Your task to perform on an android device: Open the calendar app, open the side menu, and click the "Day" option Image 0: 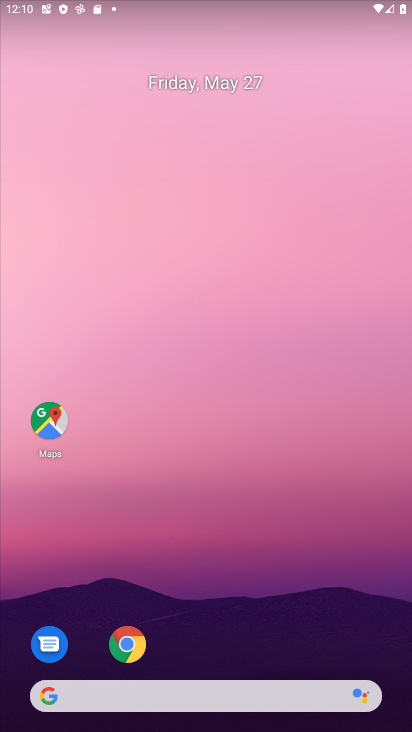
Step 0: drag from (299, 612) to (287, 36)
Your task to perform on an android device: Open the calendar app, open the side menu, and click the "Day" option Image 1: 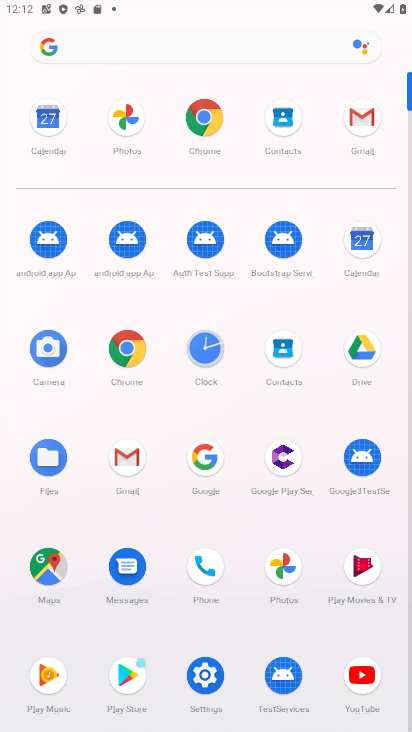
Step 1: click (372, 250)
Your task to perform on an android device: Open the calendar app, open the side menu, and click the "Day" option Image 2: 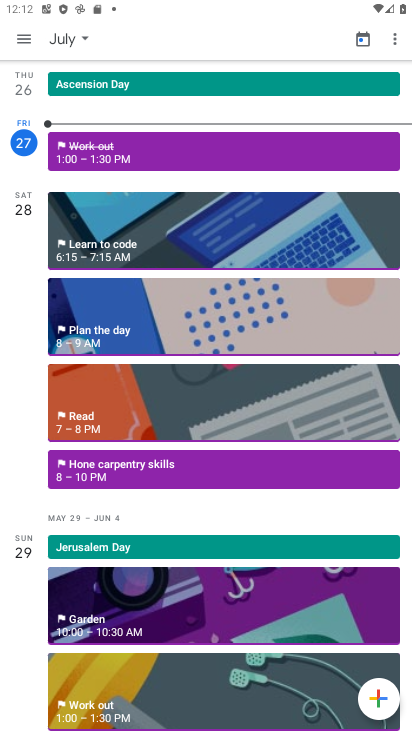
Step 2: click (20, 34)
Your task to perform on an android device: Open the calendar app, open the side menu, and click the "Day" option Image 3: 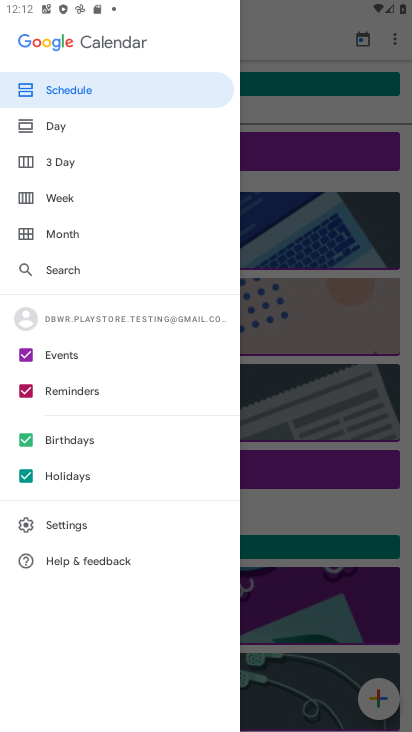
Step 3: click (91, 116)
Your task to perform on an android device: Open the calendar app, open the side menu, and click the "Day" option Image 4: 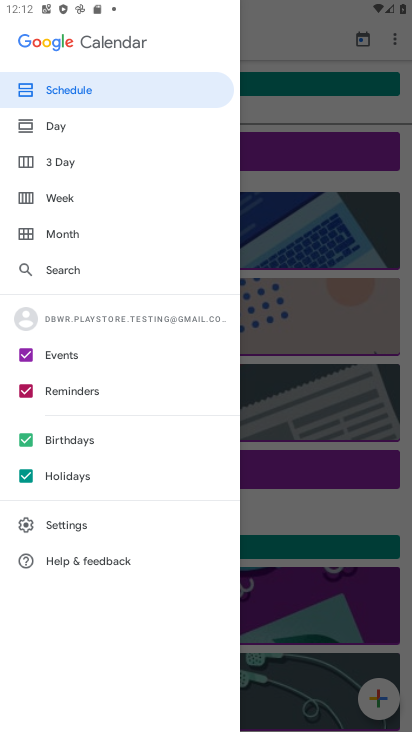
Step 4: click (37, 116)
Your task to perform on an android device: Open the calendar app, open the side menu, and click the "Day" option Image 5: 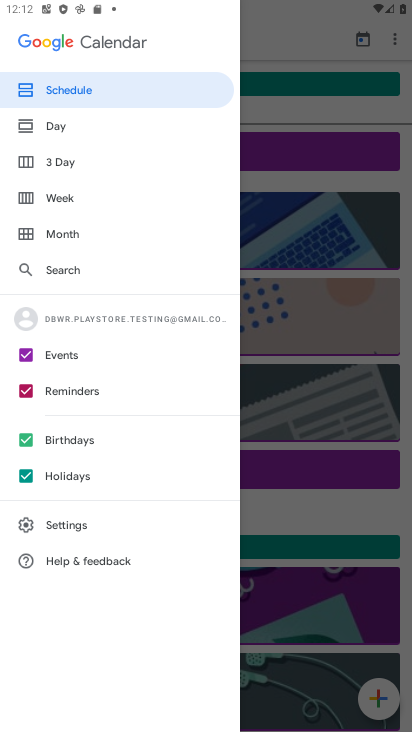
Step 5: click (49, 129)
Your task to perform on an android device: Open the calendar app, open the side menu, and click the "Day" option Image 6: 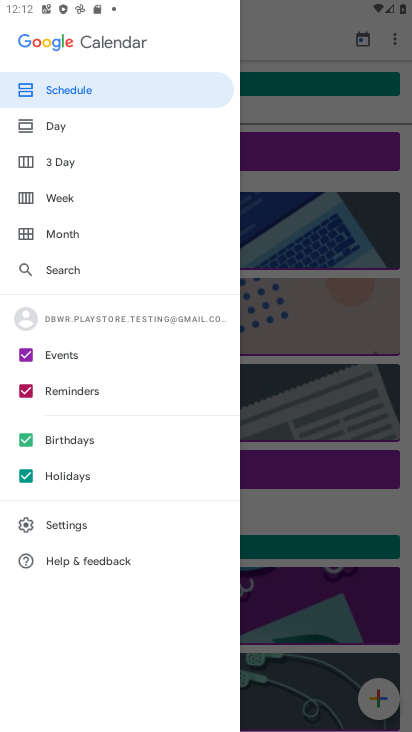
Step 6: click (49, 129)
Your task to perform on an android device: Open the calendar app, open the side menu, and click the "Day" option Image 7: 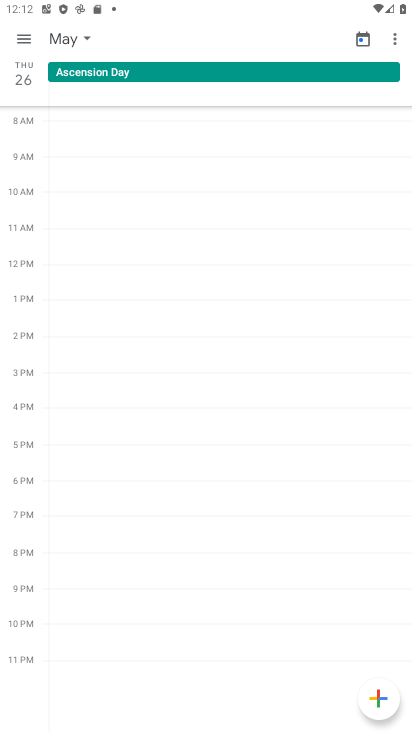
Step 7: task complete